Your task to perform on an android device: toggle priority inbox in the gmail app Image 0: 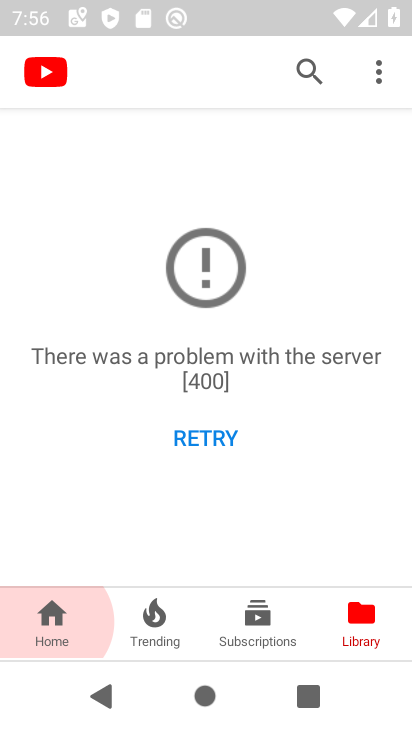
Step 0: press back button
Your task to perform on an android device: toggle priority inbox in the gmail app Image 1: 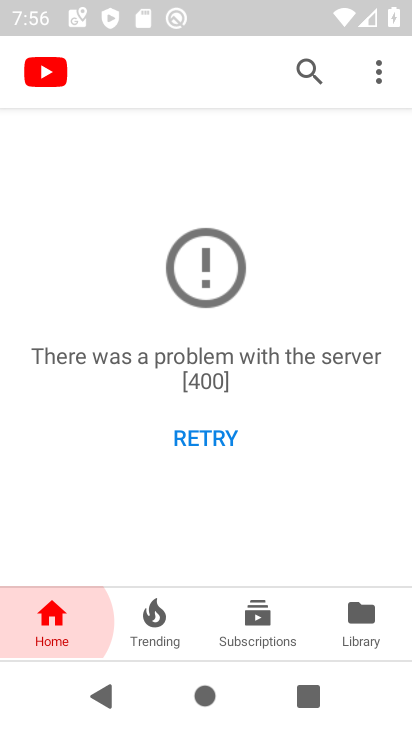
Step 1: press back button
Your task to perform on an android device: toggle priority inbox in the gmail app Image 2: 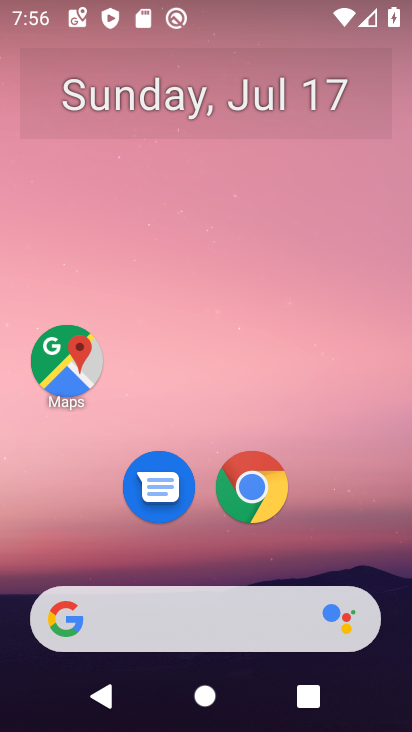
Step 2: drag from (193, 549) to (368, 6)
Your task to perform on an android device: toggle priority inbox in the gmail app Image 3: 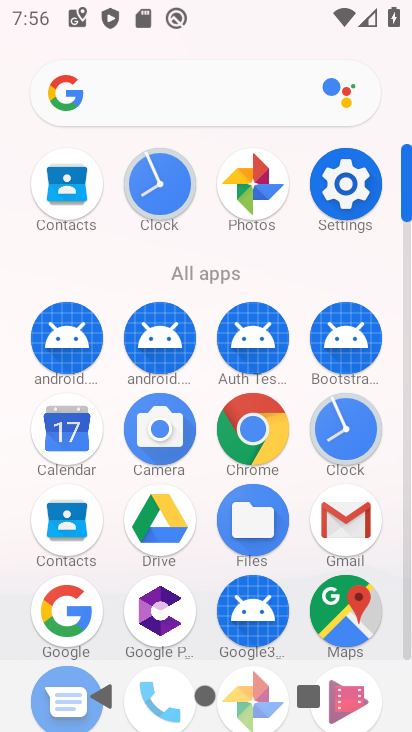
Step 3: click (336, 537)
Your task to perform on an android device: toggle priority inbox in the gmail app Image 4: 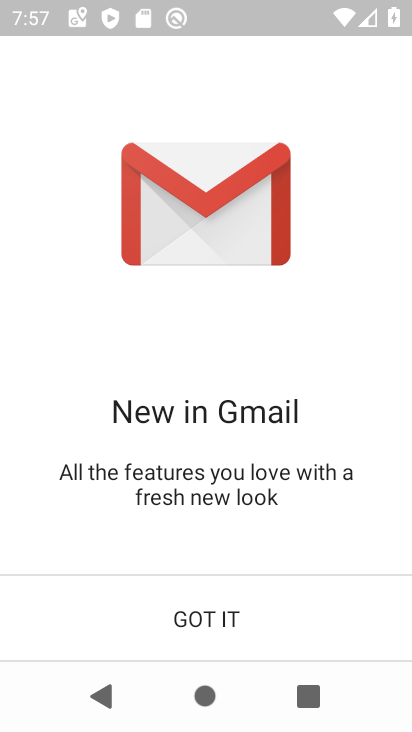
Step 4: click (191, 610)
Your task to perform on an android device: toggle priority inbox in the gmail app Image 5: 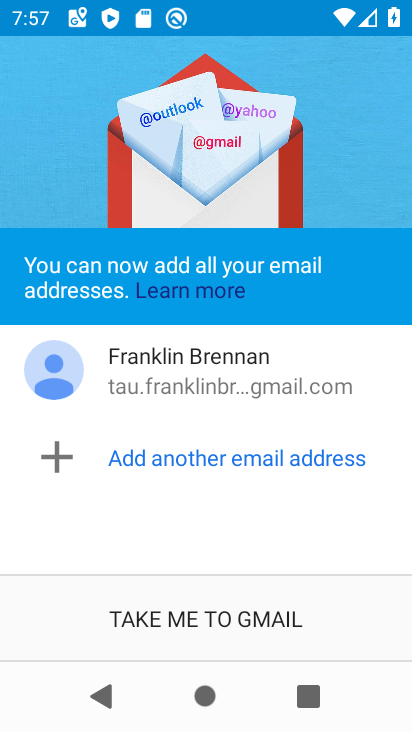
Step 5: click (186, 633)
Your task to perform on an android device: toggle priority inbox in the gmail app Image 6: 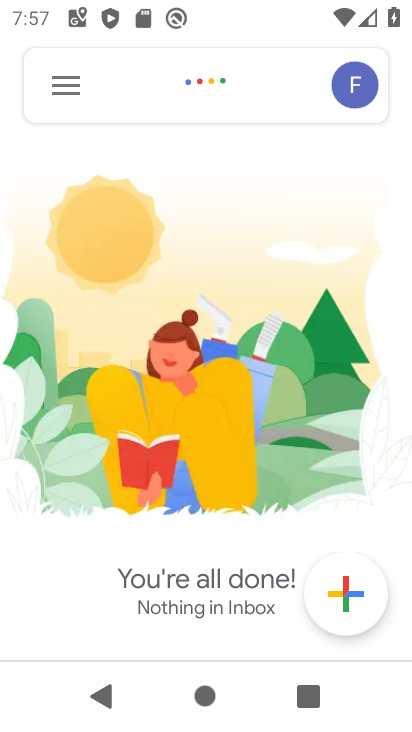
Step 6: click (47, 66)
Your task to perform on an android device: toggle priority inbox in the gmail app Image 7: 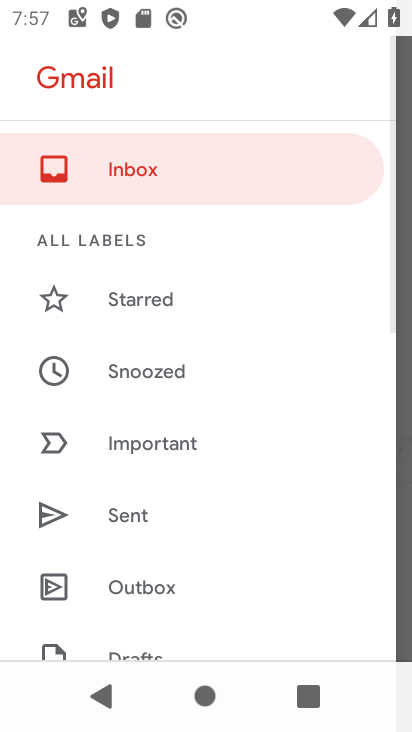
Step 7: drag from (131, 588) to (169, 27)
Your task to perform on an android device: toggle priority inbox in the gmail app Image 8: 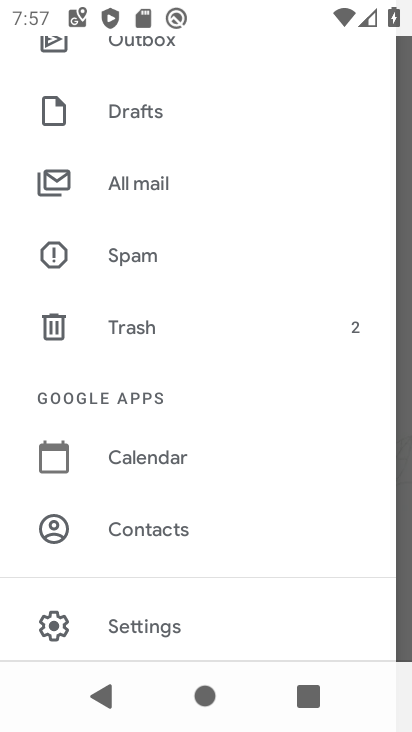
Step 8: click (133, 633)
Your task to perform on an android device: toggle priority inbox in the gmail app Image 9: 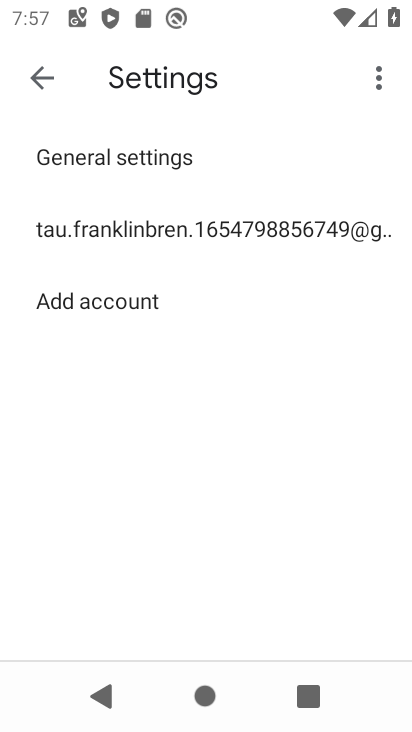
Step 9: click (170, 208)
Your task to perform on an android device: toggle priority inbox in the gmail app Image 10: 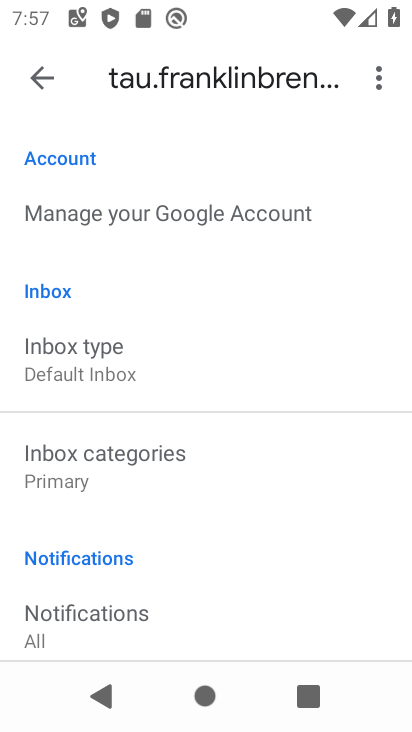
Step 10: click (151, 346)
Your task to perform on an android device: toggle priority inbox in the gmail app Image 11: 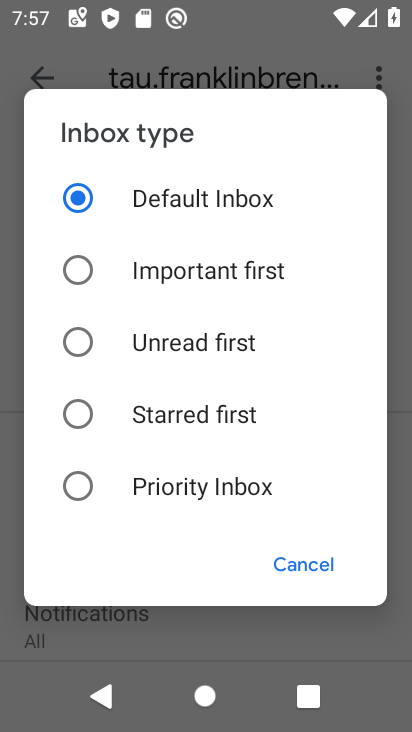
Step 11: click (88, 478)
Your task to perform on an android device: toggle priority inbox in the gmail app Image 12: 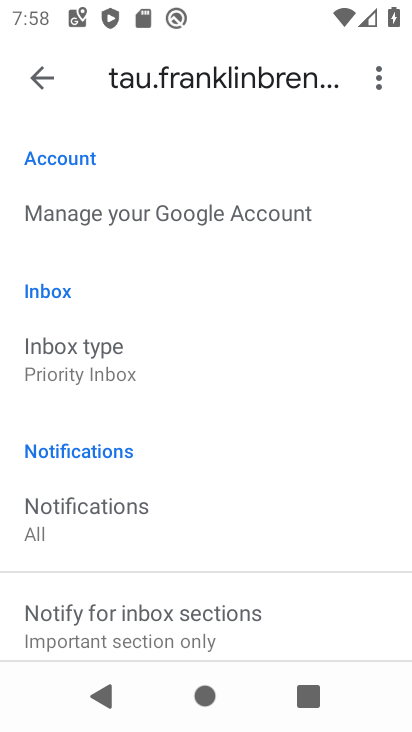
Step 12: task complete